Your task to perform on an android device: Open privacy settings Image 0: 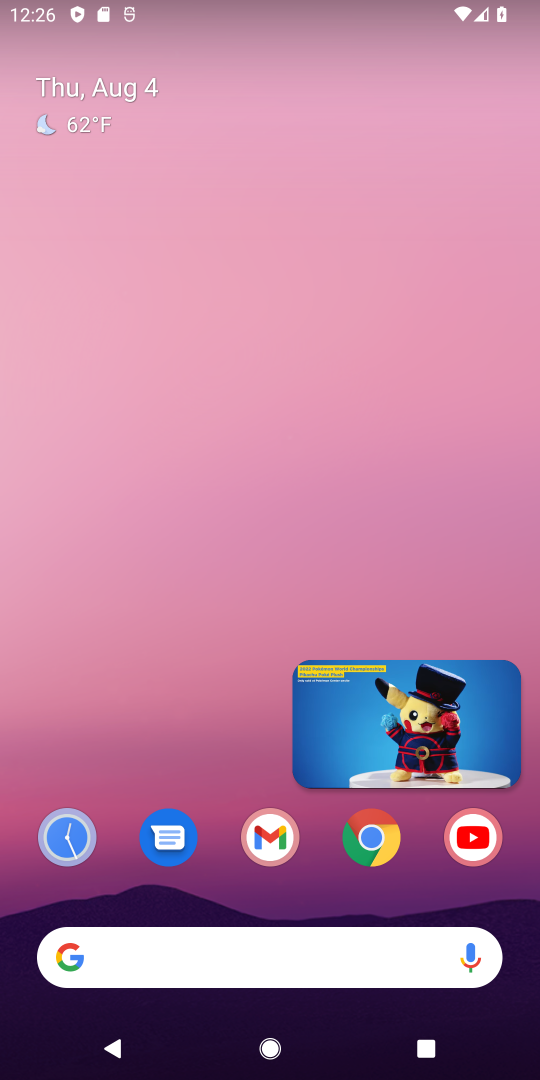
Step 0: drag from (268, 889) to (284, 74)
Your task to perform on an android device: Open privacy settings Image 1: 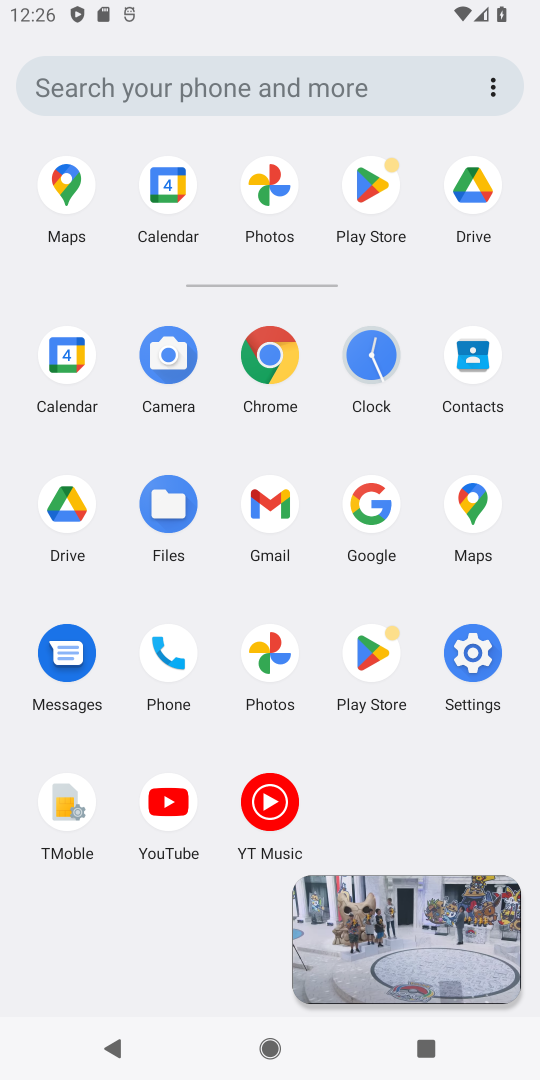
Step 1: click (482, 638)
Your task to perform on an android device: Open privacy settings Image 2: 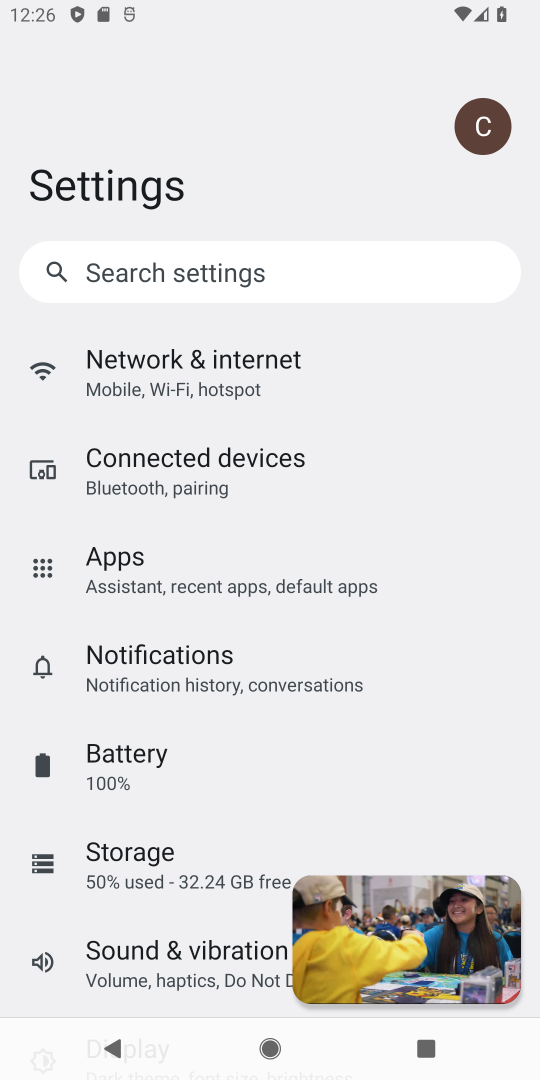
Step 2: drag from (171, 851) to (162, 271)
Your task to perform on an android device: Open privacy settings Image 3: 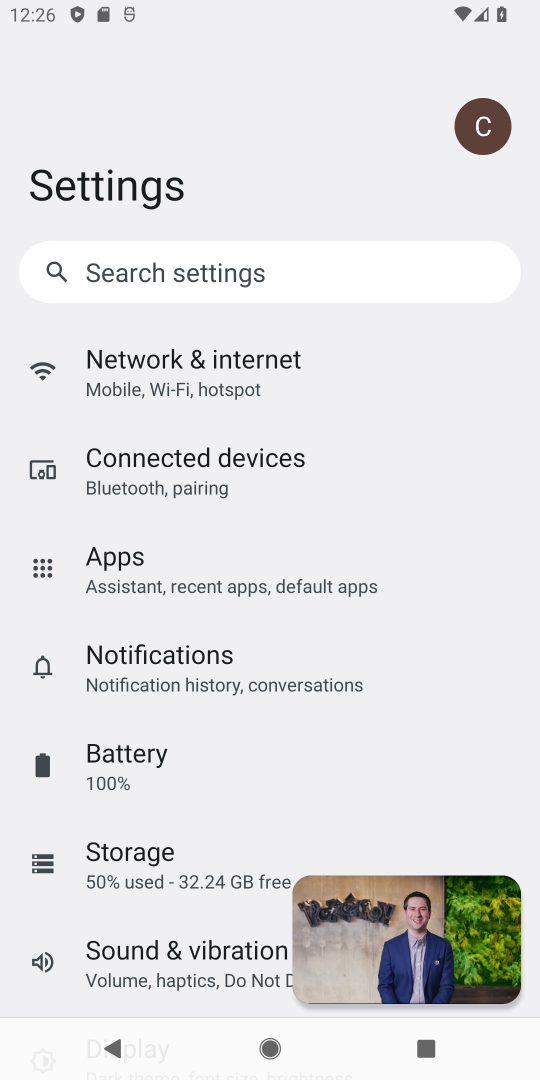
Step 3: drag from (179, 721) to (131, 68)
Your task to perform on an android device: Open privacy settings Image 4: 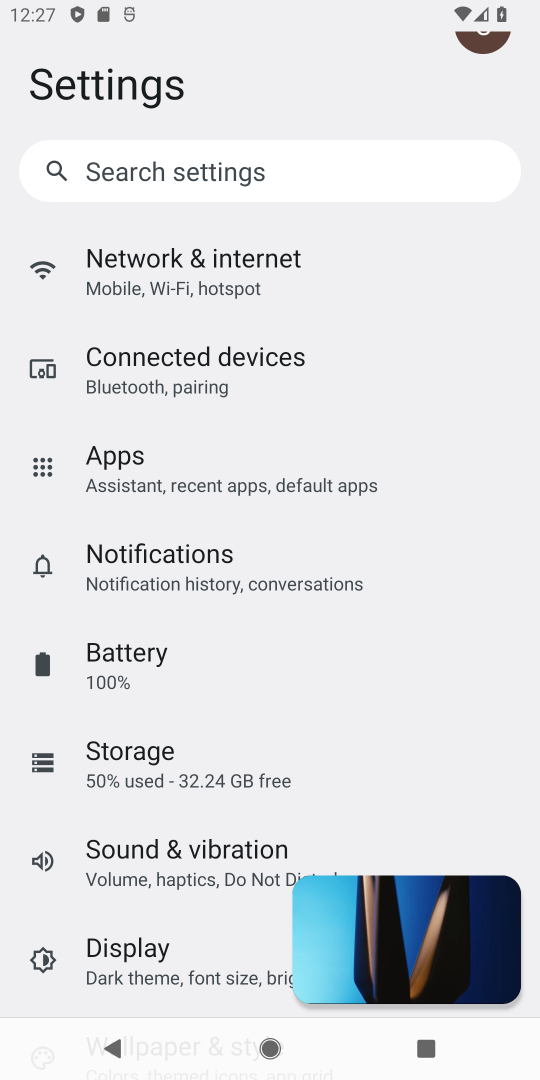
Step 4: drag from (132, 832) to (66, 484)
Your task to perform on an android device: Open privacy settings Image 5: 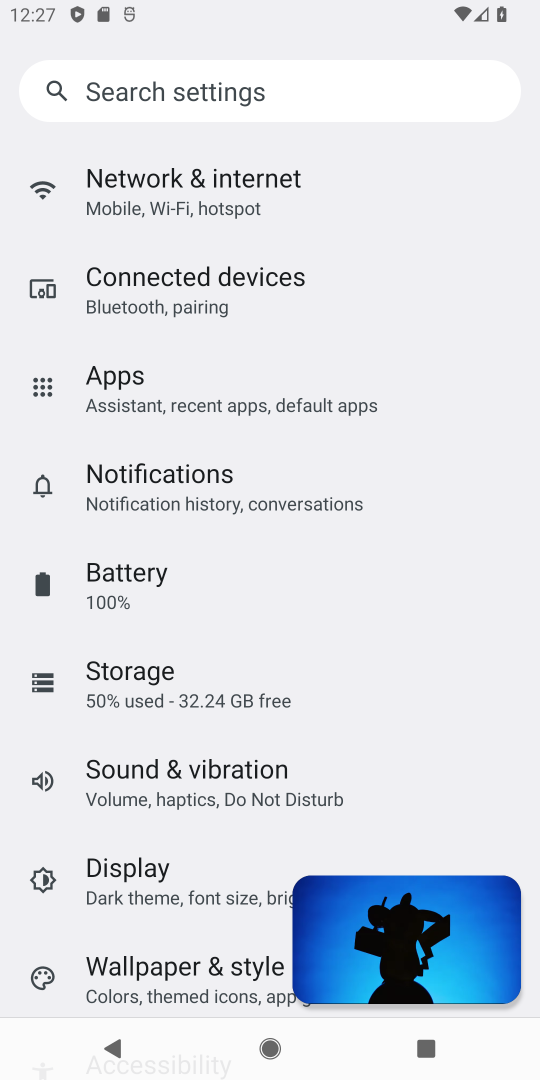
Step 5: drag from (106, 969) to (81, 375)
Your task to perform on an android device: Open privacy settings Image 6: 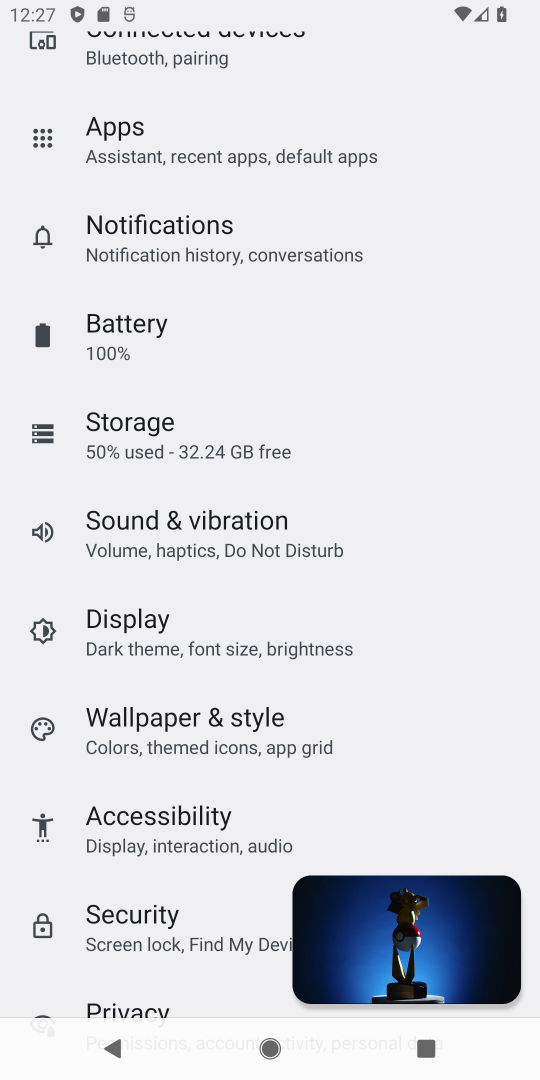
Step 6: drag from (86, 981) to (62, 673)
Your task to perform on an android device: Open privacy settings Image 7: 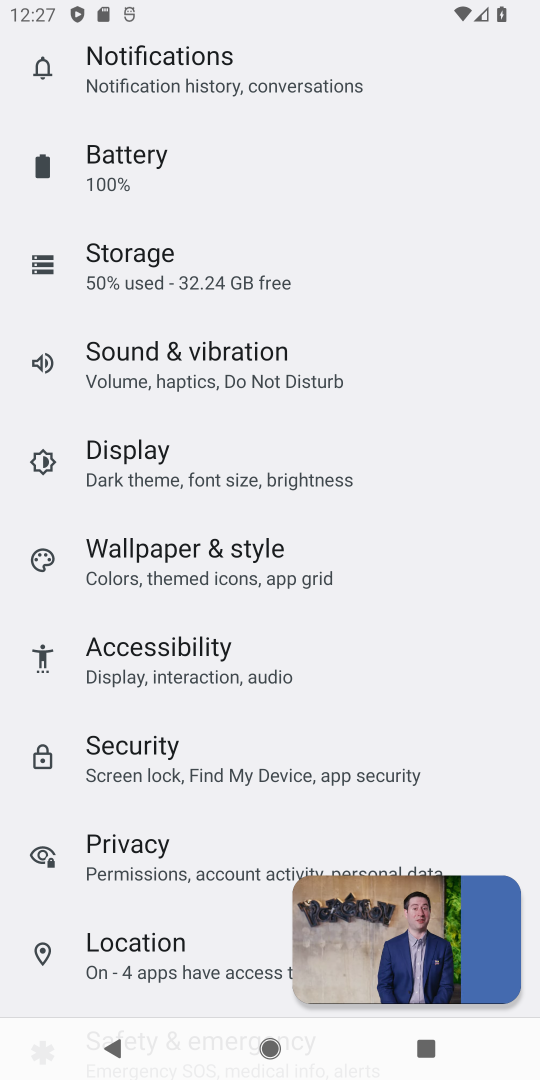
Step 7: click (111, 865)
Your task to perform on an android device: Open privacy settings Image 8: 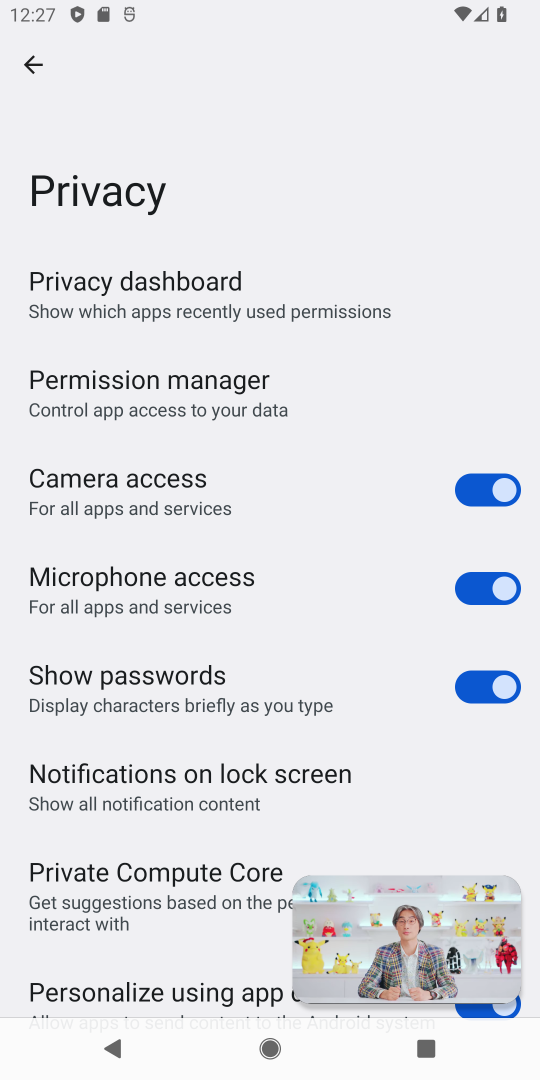
Step 8: task complete